Your task to perform on an android device: remove spam from my inbox in the gmail app Image 0: 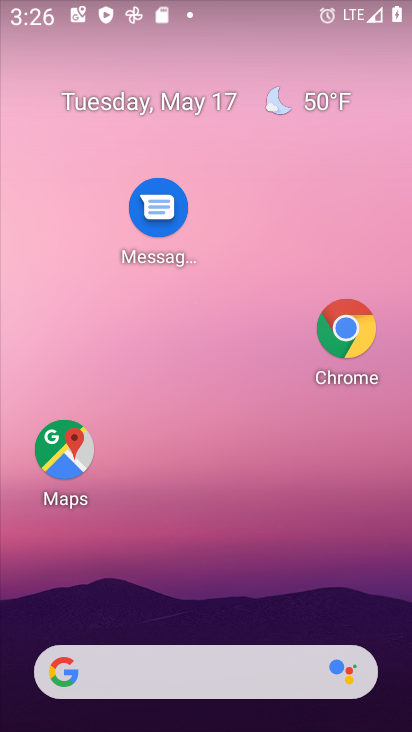
Step 0: drag from (224, 618) to (263, 1)
Your task to perform on an android device: remove spam from my inbox in the gmail app Image 1: 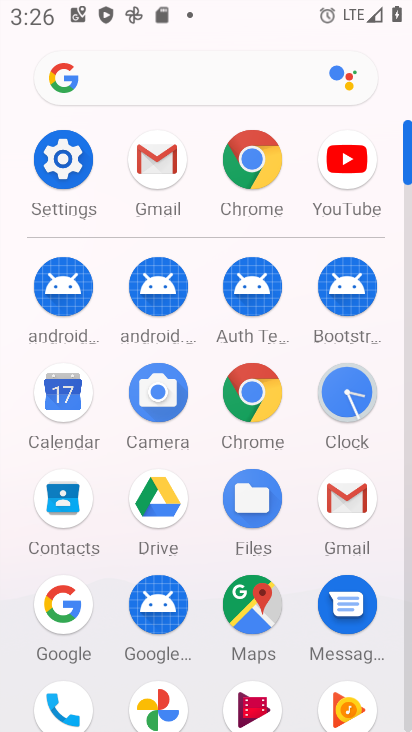
Step 1: click (150, 187)
Your task to perform on an android device: remove spam from my inbox in the gmail app Image 2: 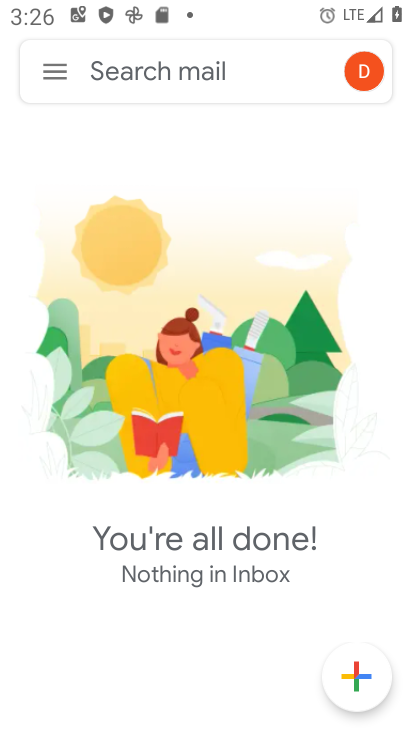
Step 2: click (67, 84)
Your task to perform on an android device: remove spam from my inbox in the gmail app Image 3: 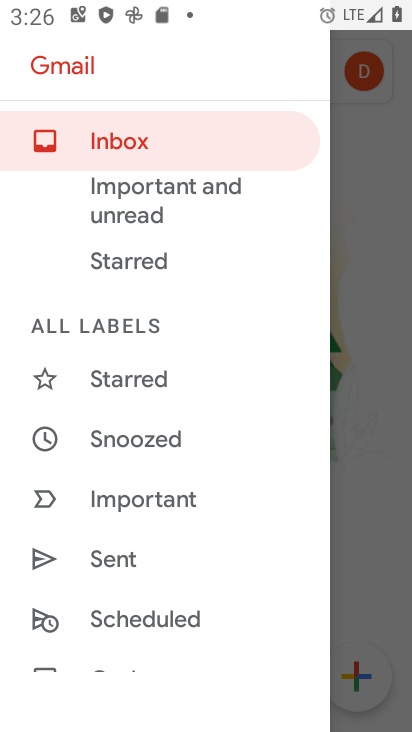
Step 3: drag from (60, 576) to (137, 240)
Your task to perform on an android device: remove spam from my inbox in the gmail app Image 4: 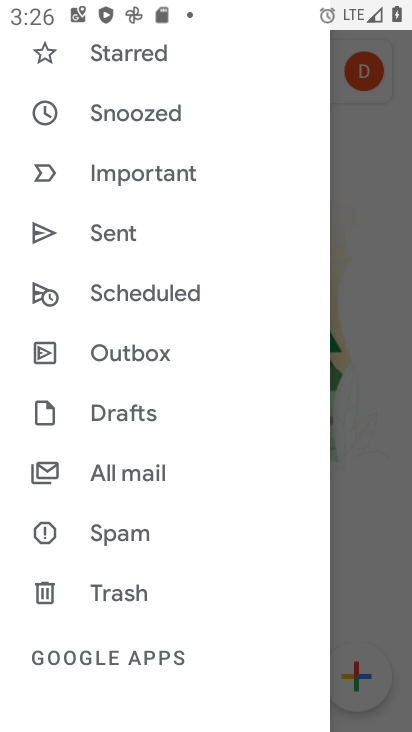
Step 4: click (127, 534)
Your task to perform on an android device: remove spam from my inbox in the gmail app Image 5: 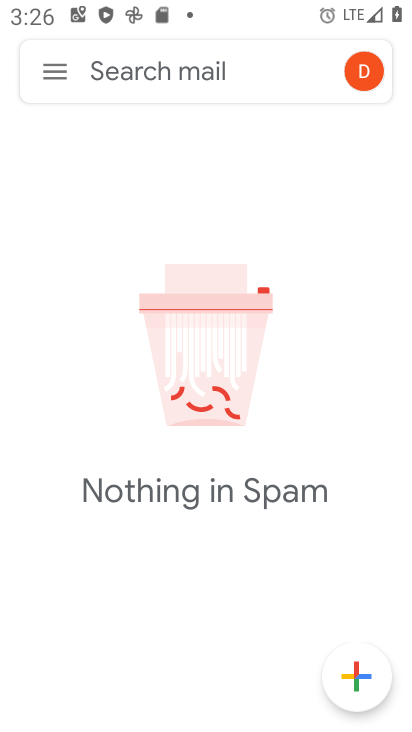
Step 5: task complete